Your task to perform on an android device: Turn off the flashlight Image 0: 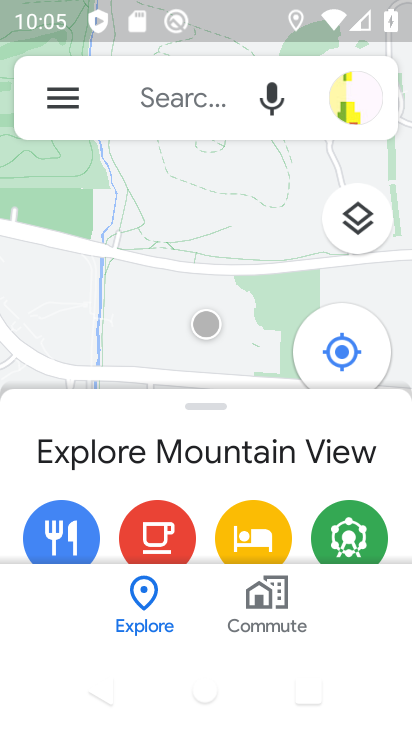
Step 0: drag from (225, 171) to (167, 403)
Your task to perform on an android device: Turn off the flashlight Image 1: 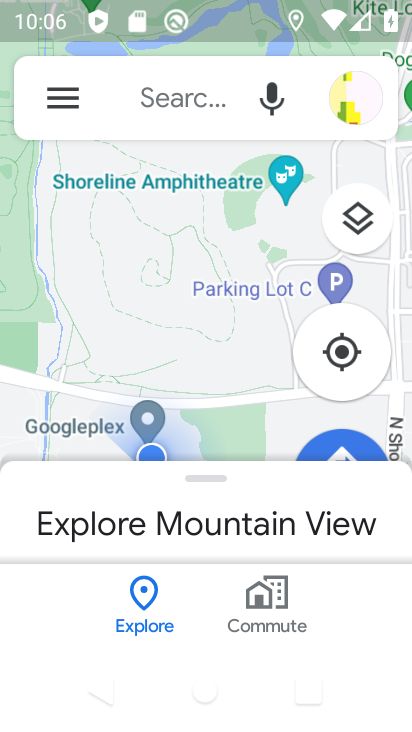
Step 1: task complete